Your task to perform on an android device: Go to Yahoo.com Image 0: 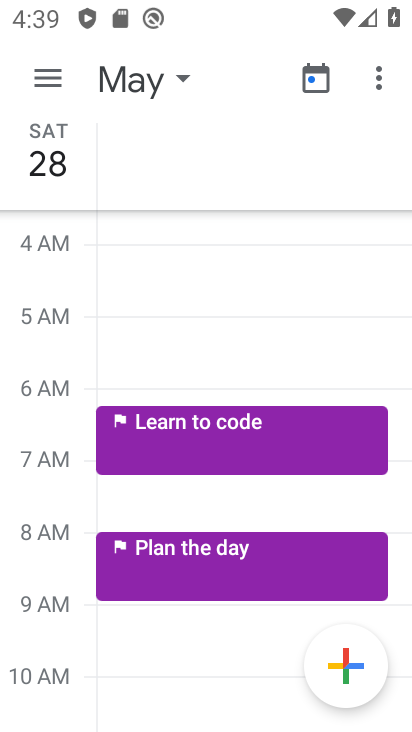
Step 0: press home button
Your task to perform on an android device: Go to Yahoo.com Image 1: 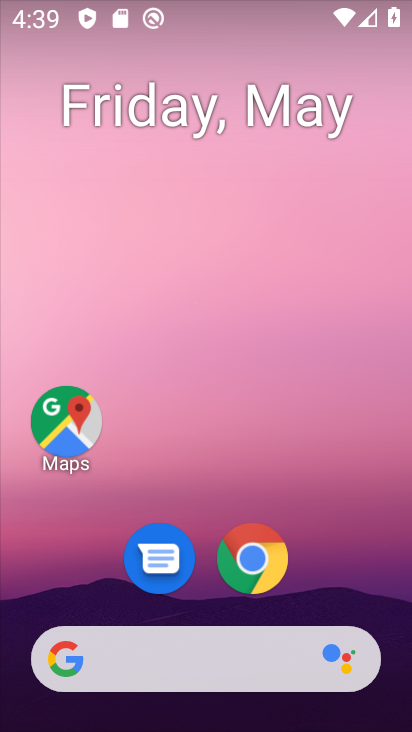
Step 1: click (244, 548)
Your task to perform on an android device: Go to Yahoo.com Image 2: 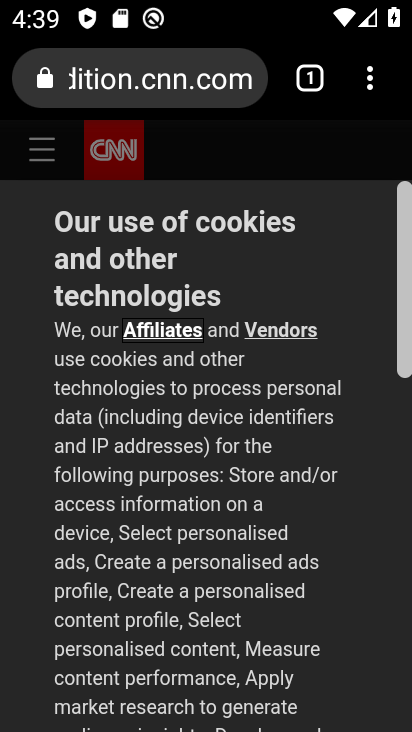
Step 2: click (155, 68)
Your task to perform on an android device: Go to Yahoo.com Image 3: 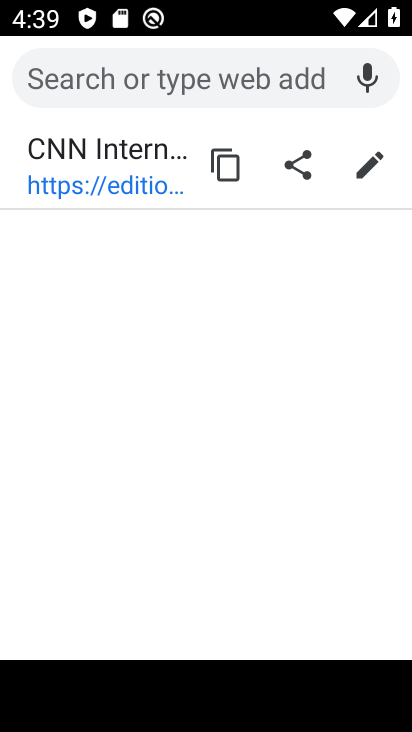
Step 3: type "yahoo.com"
Your task to perform on an android device: Go to Yahoo.com Image 4: 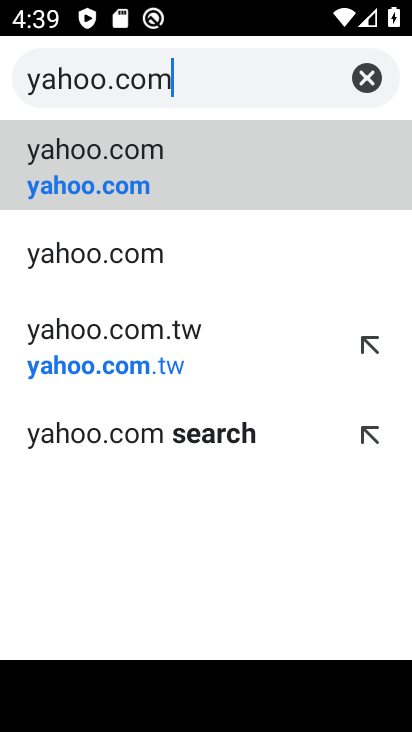
Step 4: click (85, 186)
Your task to perform on an android device: Go to Yahoo.com Image 5: 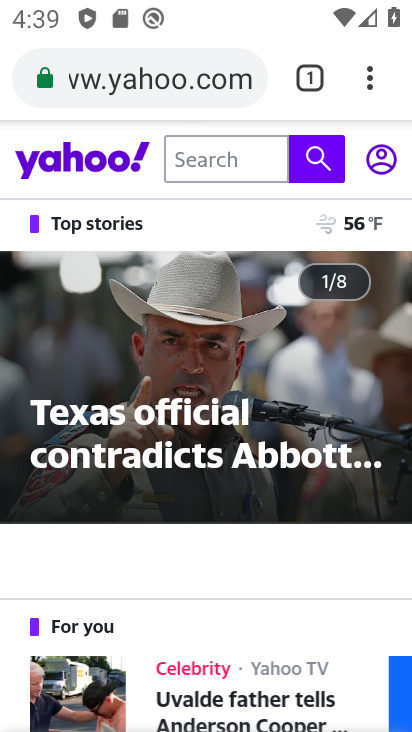
Step 5: task complete